Your task to perform on an android device: toggle translation in the chrome app Image 0: 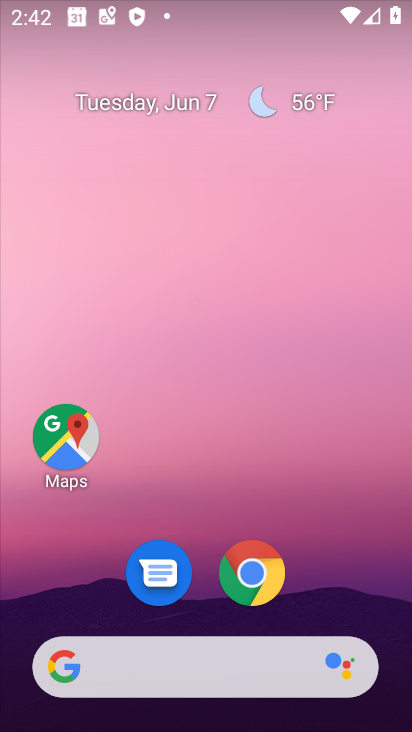
Step 0: click (255, 592)
Your task to perform on an android device: toggle translation in the chrome app Image 1: 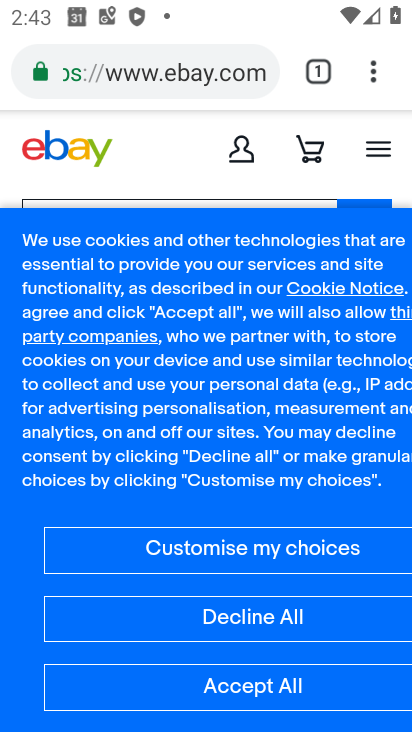
Step 1: click (375, 59)
Your task to perform on an android device: toggle translation in the chrome app Image 2: 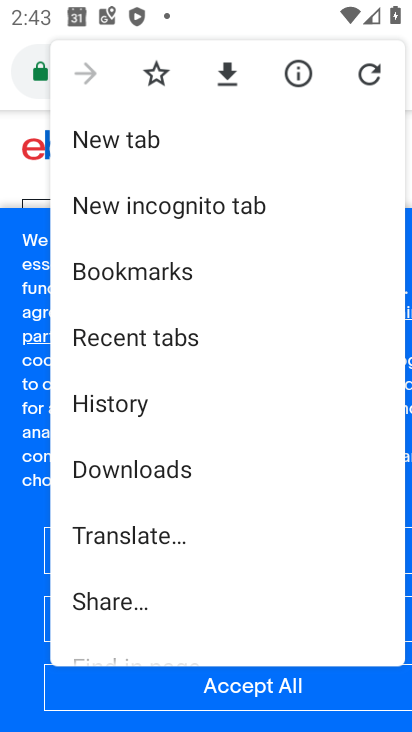
Step 2: drag from (174, 574) to (184, 267)
Your task to perform on an android device: toggle translation in the chrome app Image 3: 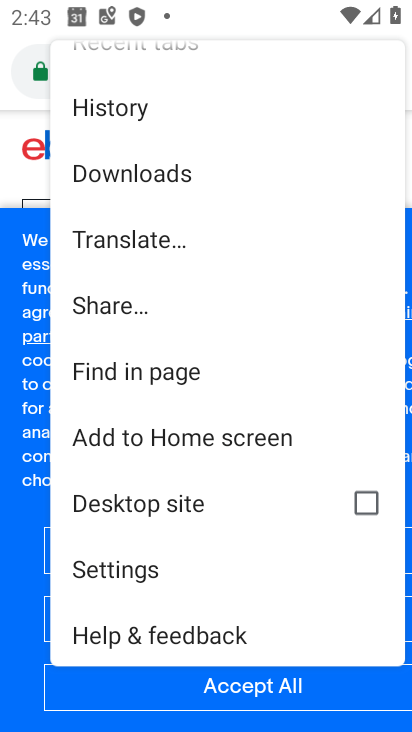
Step 3: click (98, 570)
Your task to perform on an android device: toggle translation in the chrome app Image 4: 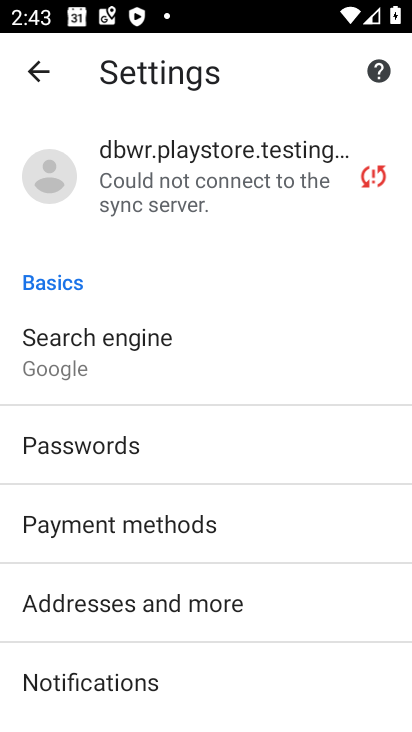
Step 4: drag from (166, 644) to (152, 203)
Your task to perform on an android device: toggle translation in the chrome app Image 5: 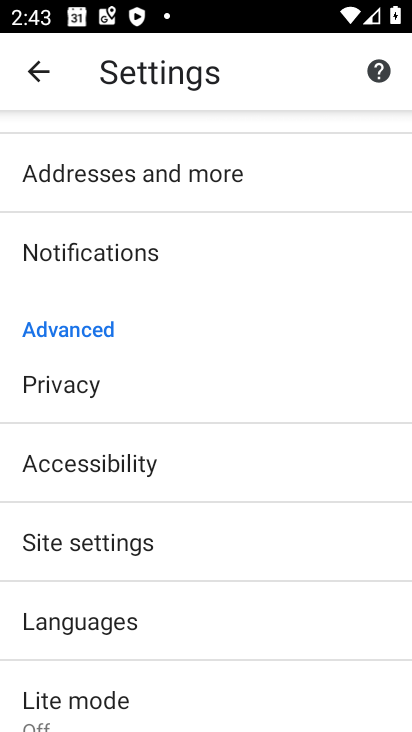
Step 5: click (121, 623)
Your task to perform on an android device: toggle translation in the chrome app Image 6: 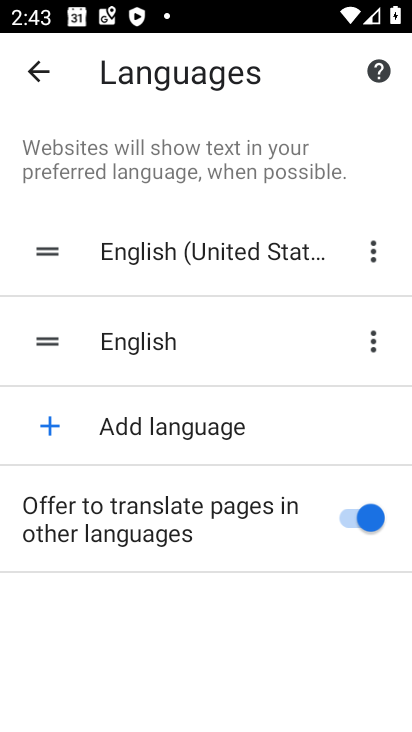
Step 6: click (358, 524)
Your task to perform on an android device: toggle translation in the chrome app Image 7: 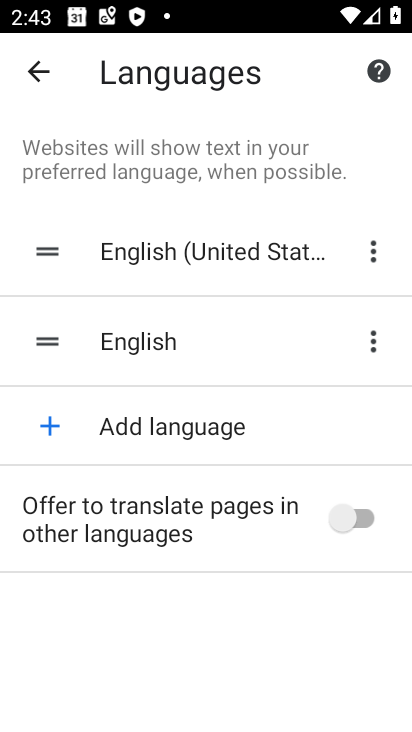
Step 7: task complete